Your task to perform on an android device: Open maps Image 0: 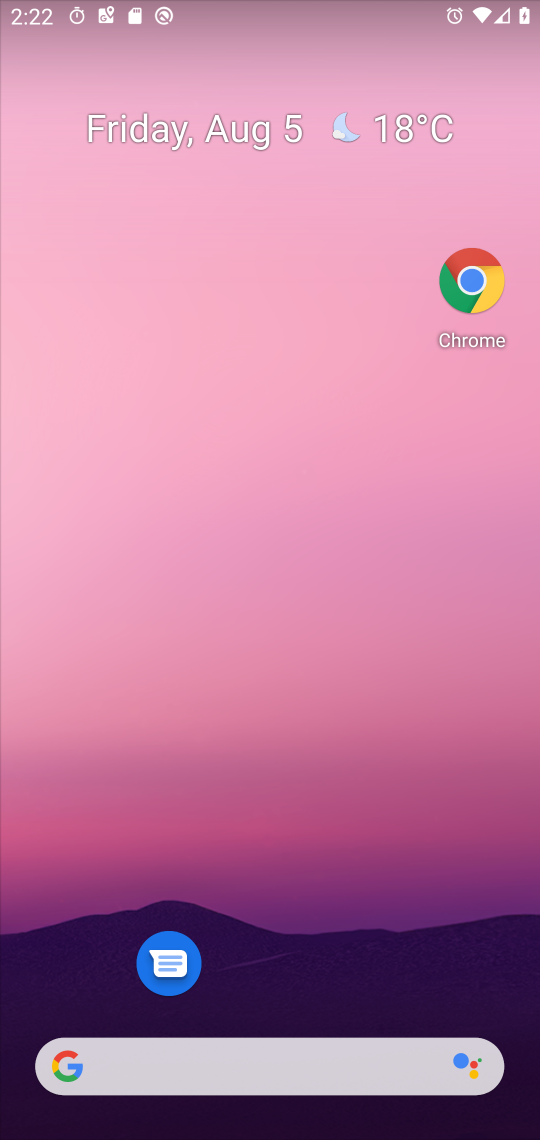
Step 0: drag from (382, 1040) to (339, 142)
Your task to perform on an android device: Open maps Image 1: 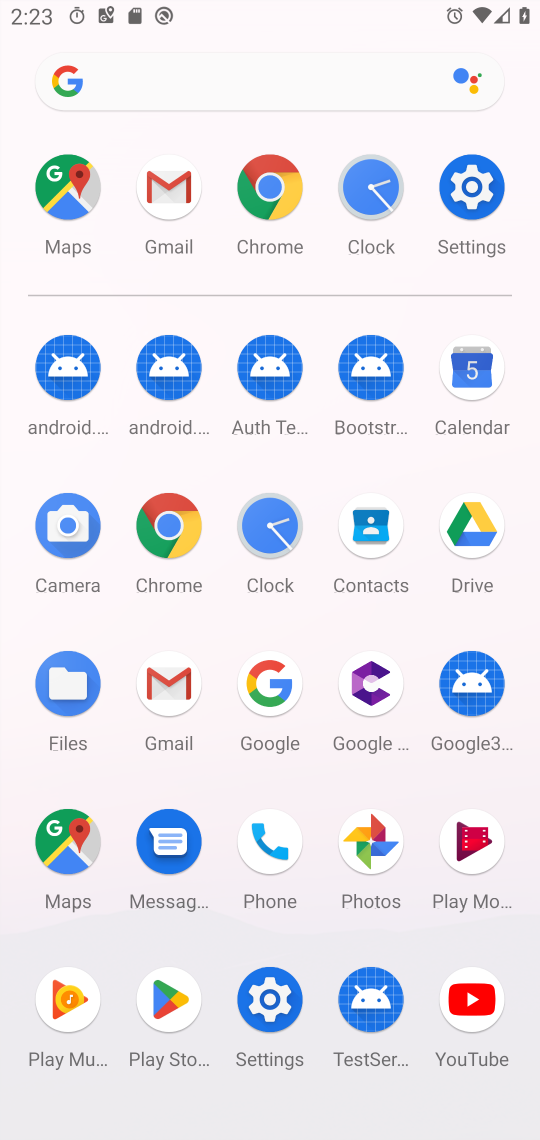
Step 1: click (55, 865)
Your task to perform on an android device: Open maps Image 2: 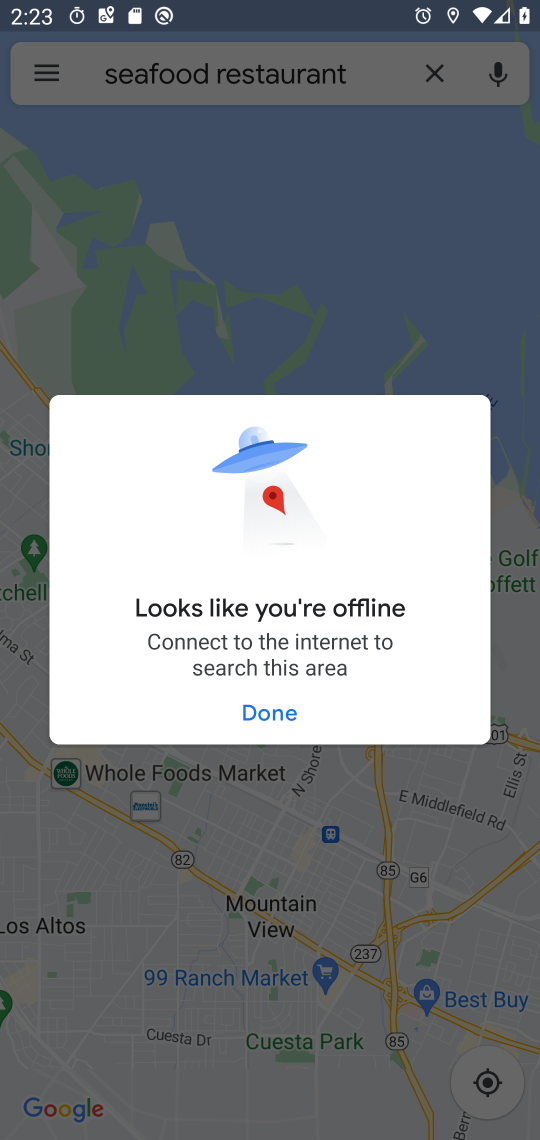
Step 2: click (303, 345)
Your task to perform on an android device: Open maps Image 3: 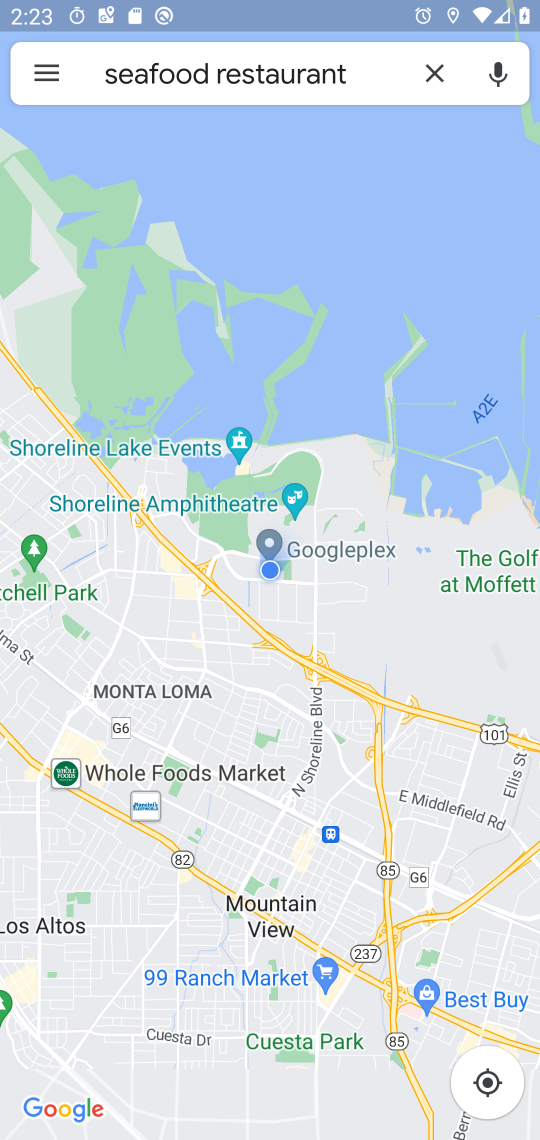
Step 3: task complete